Your task to perform on an android device: Open Yahoo.com Image 0: 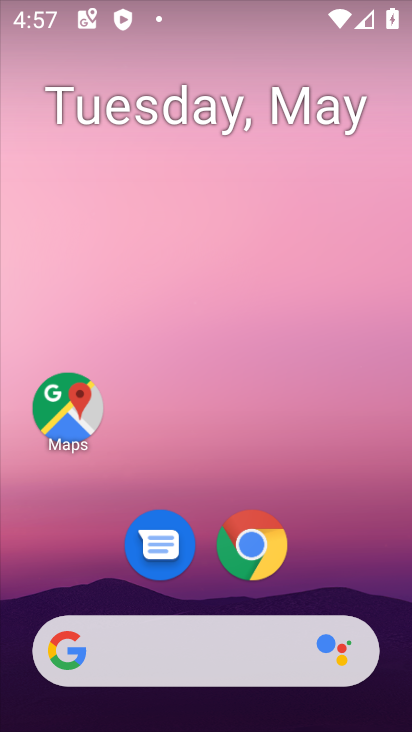
Step 0: drag from (380, 579) to (267, 78)
Your task to perform on an android device: Open Yahoo.com Image 1: 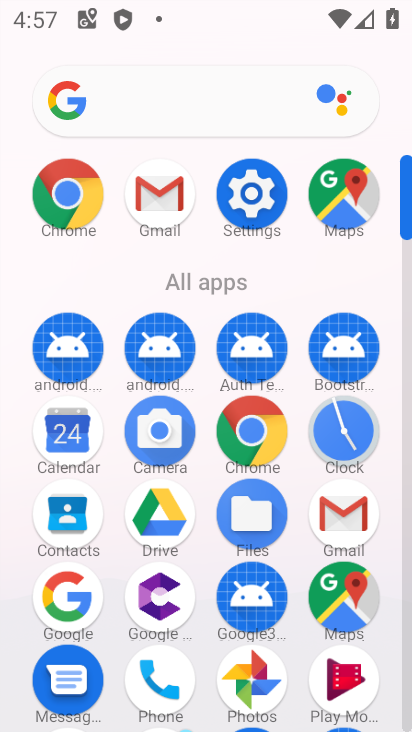
Step 1: click (244, 430)
Your task to perform on an android device: Open Yahoo.com Image 2: 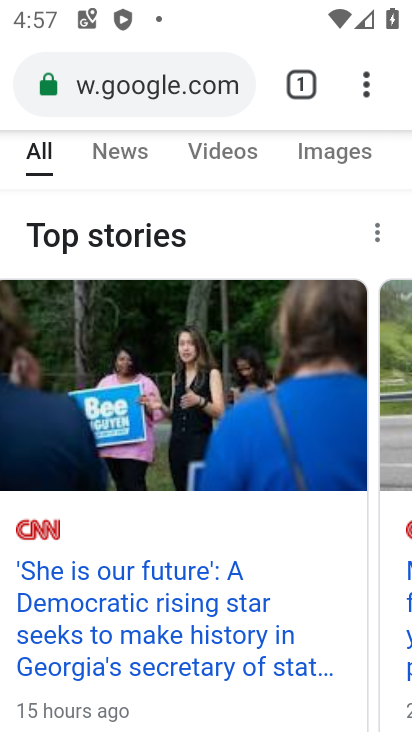
Step 2: click (155, 87)
Your task to perform on an android device: Open Yahoo.com Image 3: 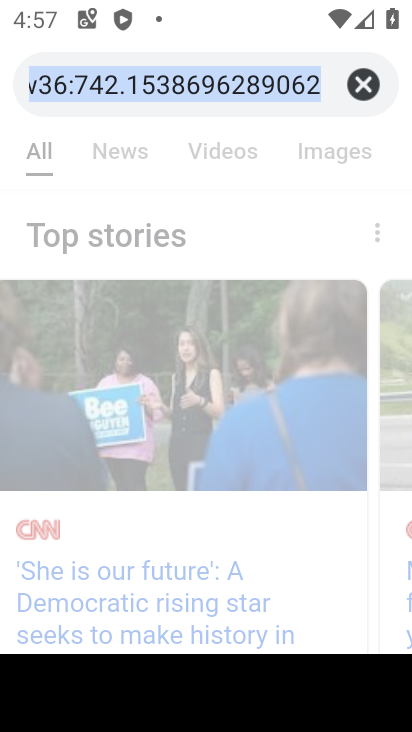
Step 3: click (373, 88)
Your task to perform on an android device: Open Yahoo.com Image 4: 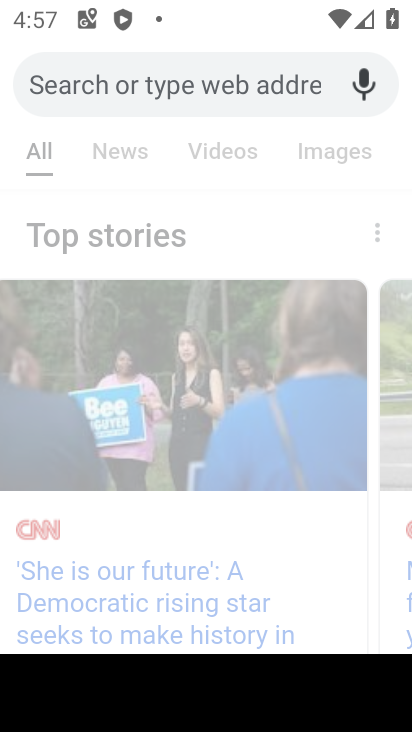
Step 4: type "Yahoo.com"
Your task to perform on an android device: Open Yahoo.com Image 5: 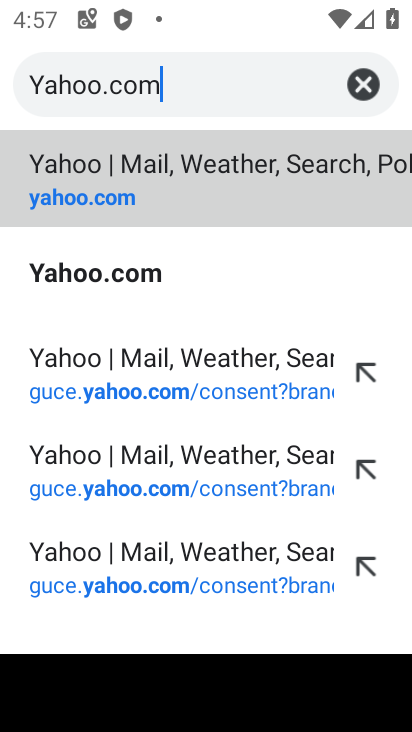
Step 5: type ""
Your task to perform on an android device: Open Yahoo.com Image 6: 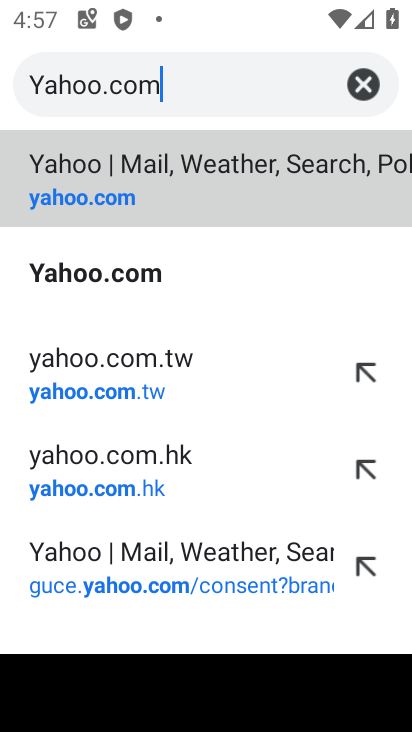
Step 6: click (148, 186)
Your task to perform on an android device: Open Yahoo.com Image 7: 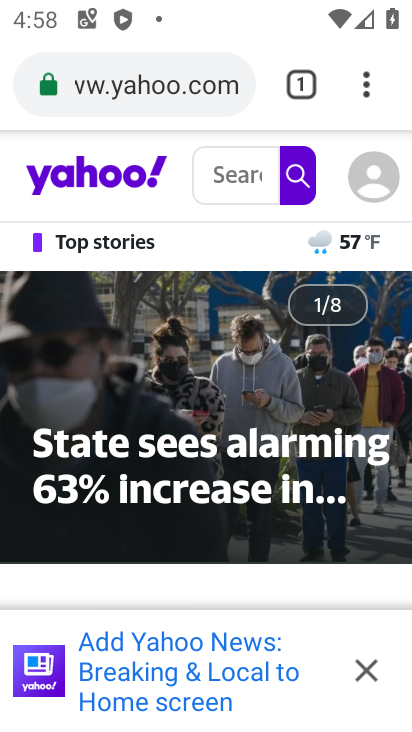
Step 7: task complete